Your task to perform on an android device: Go to Android settings Image 0: 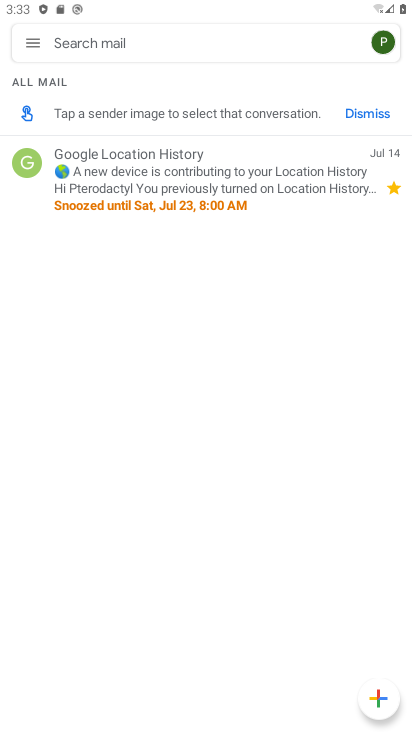
Step 0: press home button
Your task to perform on an android device: Go to Android settings Image 1: 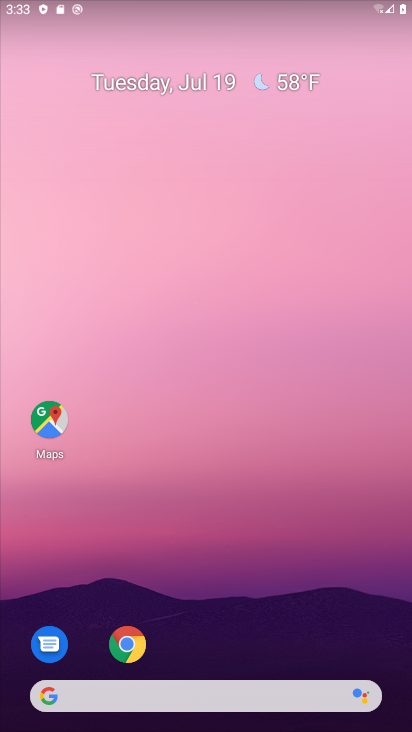
Step 1: drag from (236, 656) to (292, 115)
Your task to perform on an android device: Go to Android settings Image 2: 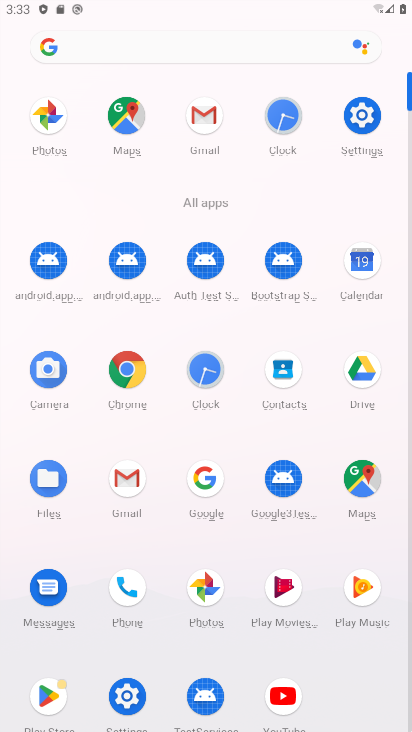
Step 2: click (125, 696)
Your task to perform on an android device: Go to Android settings Image 3: 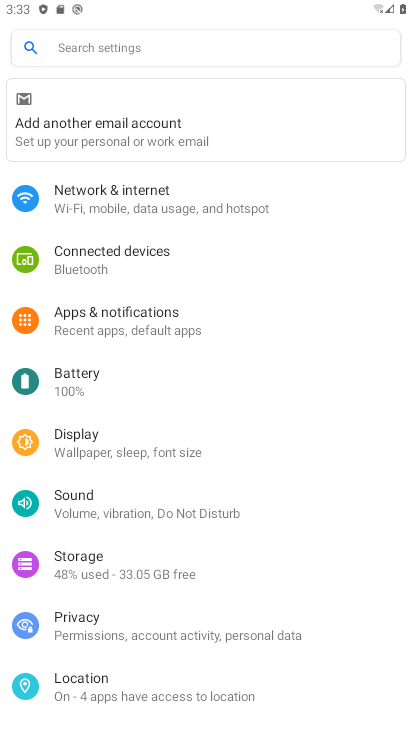
Step 3: task complete